Your task to perform on an android device: Toggle the flashlight Image 0: 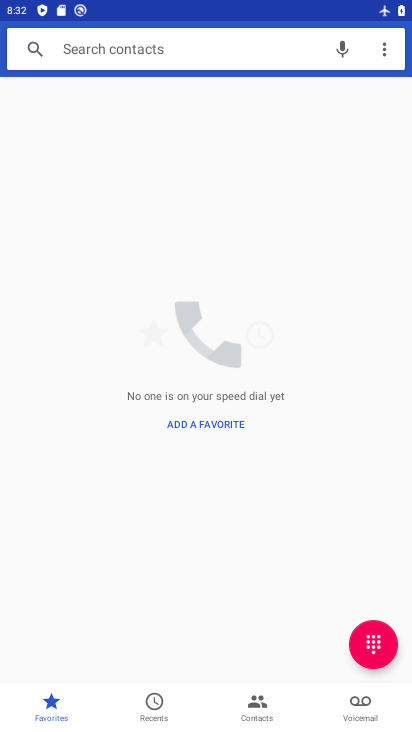
Step 0: press home button
Your task to perform on an android device: Toggle the flashlight Image 1: 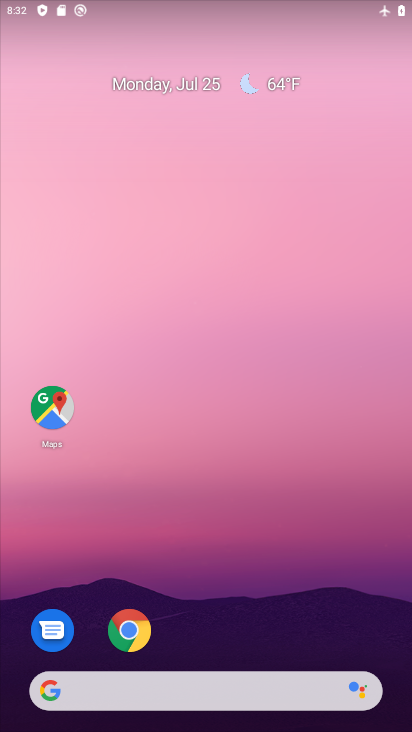
Step 1: drag from (216, 7) to (232, 370)
Your task to perform on an android device: Toggle the flashlight Image 2: 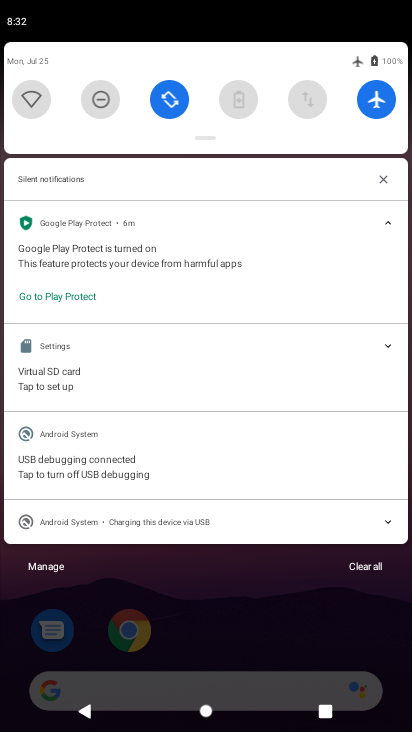
Step 2: drag from (202, 136) to (175, 388)
Your task to perform on an android device: Toggle the flashlight Image 3: 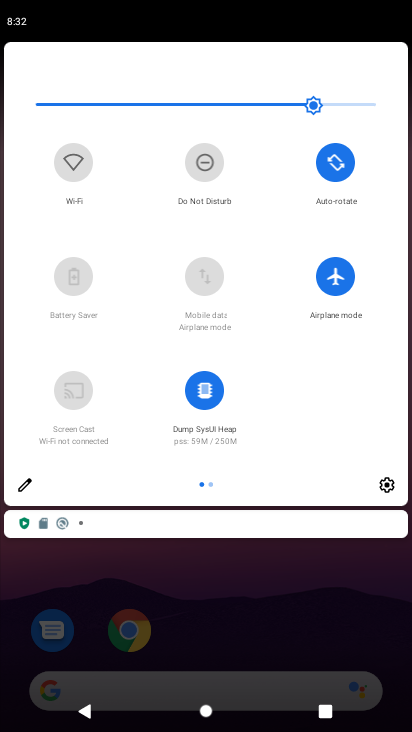
Step 3: click (22, 486)
Your task to perform on an android device: Toggle the flashlight Image 4: 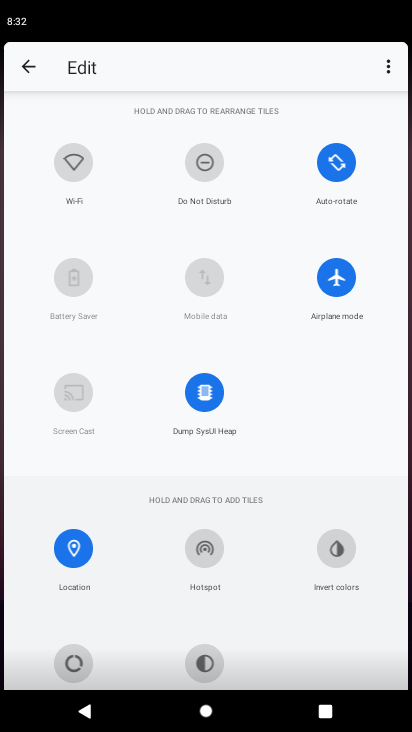
Step 4: task complete